Your task to perform on an android device: turn off javascript in the chrome app Image 0: 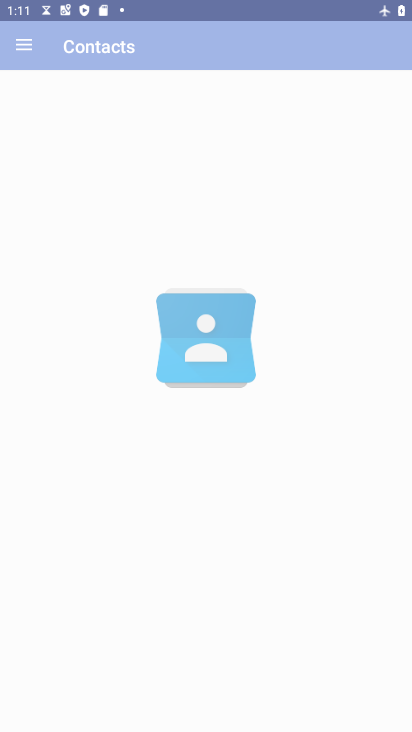
Step 0: drag from (216, 698) to (153, 164)
Your task to perform on an android device: turn off javascript in the chrome app Image 1: 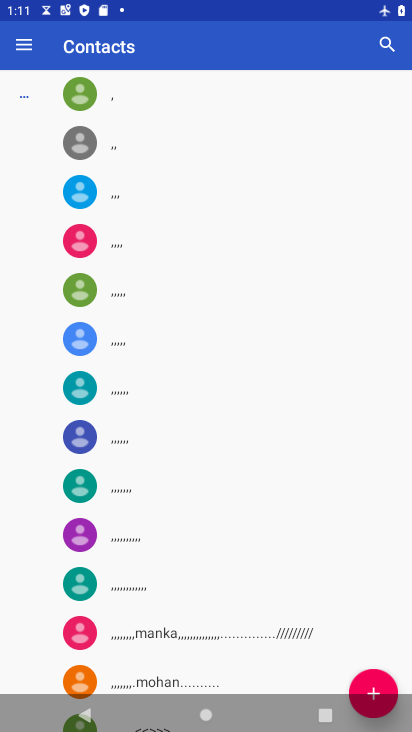
Step 1: press back button
Your task to perform on an android device: turn off javascript in the chrome app Image 2: 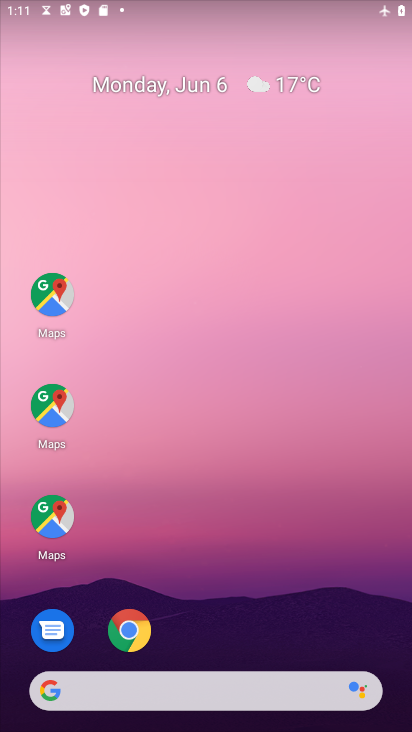
Step 2: drag from (295, 701) to (317, 178)
Your task to perform on an android device: turn off javascript in the chrome app Image 3: 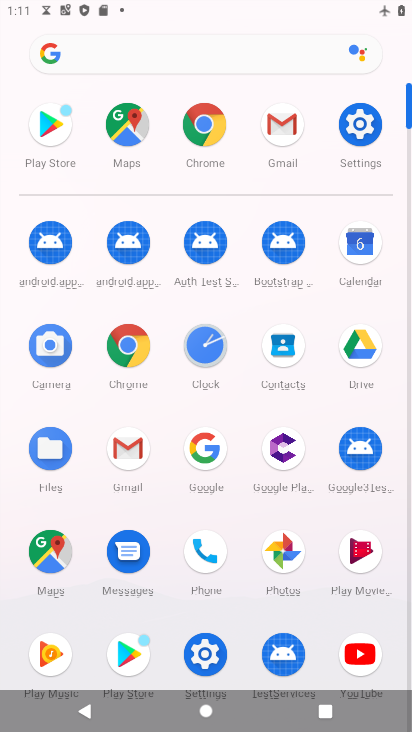
Step 3: click (212, 120)
Your task to perform on an android device: turn off javascript in the chrome app Image 4: 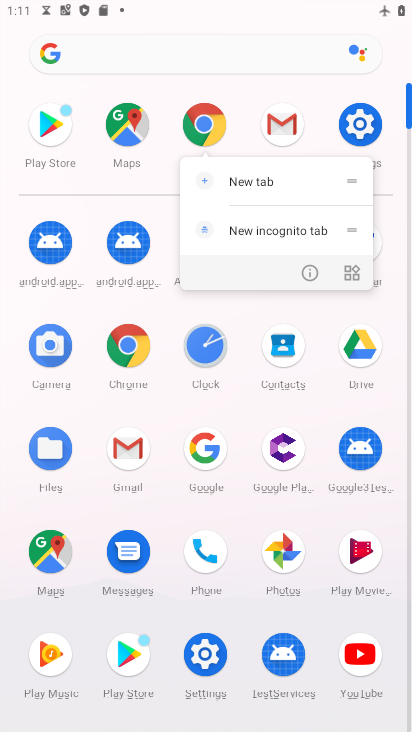
Step 4: click (200, 127)
Your task to perform on an android device: turn off javascript in the chrome app Image 5: 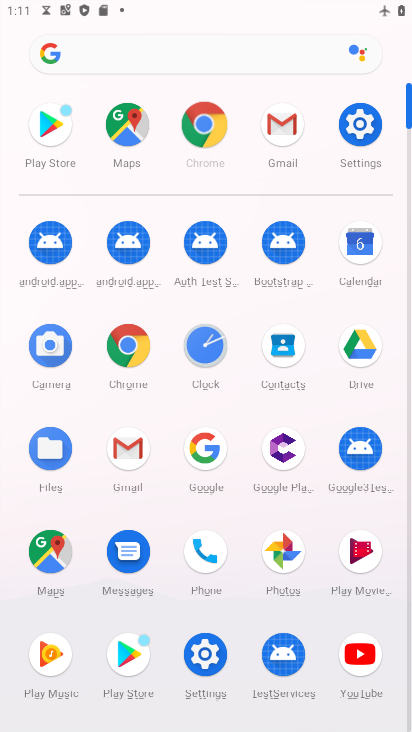
Step 5: click (199, 127)
Your task to perform on an android device: turn off javascript in the chrome app Image 6: 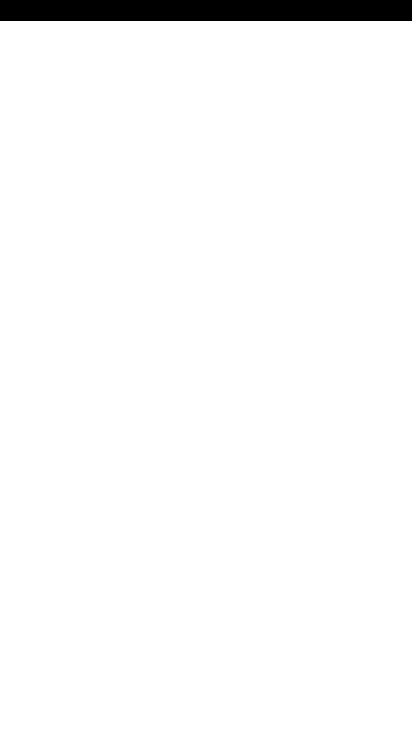
Step 6: click (198, 122)
Your task to perform on an android device: turn off javascript in the chrome app Image 7: 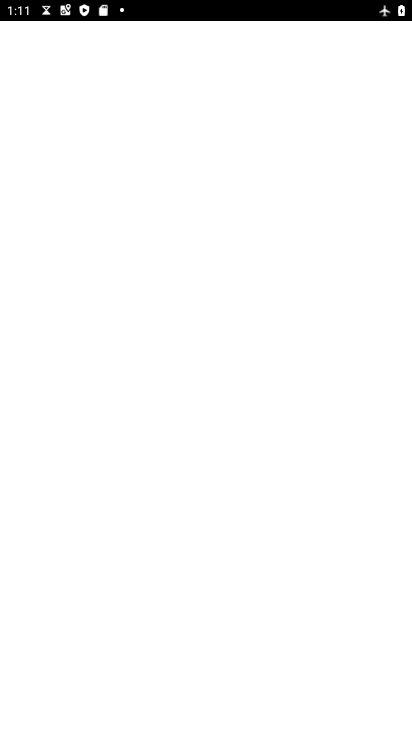
Step 7: click (197, 115)
Your task to perform on an android device: turn off javascript in the chrome app Image 8: 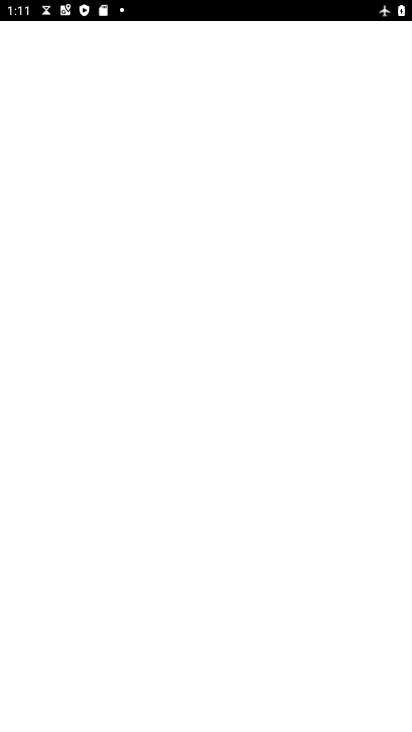
Step 8: click (197, 115)
Your task to perform on an android device: turn off javascript in the chrome app Image 9: 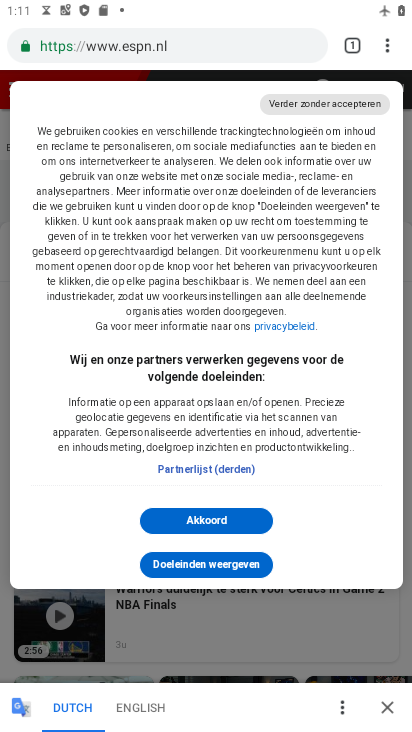
Step 9: click (376, 39)
Your task to perform on an android device: turn off javascript in the chrome app Image 10: 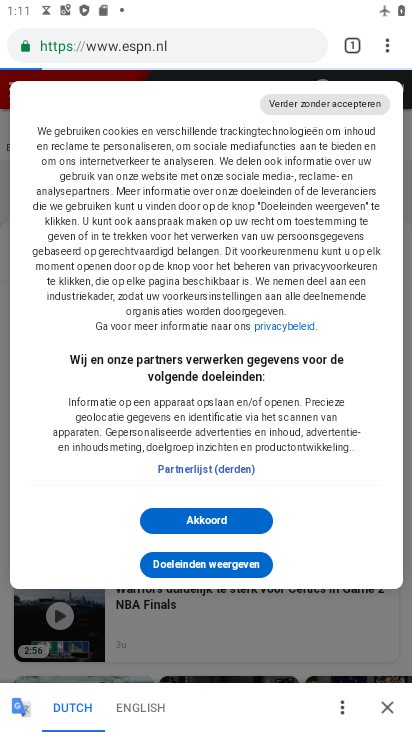
Step 10: drag from (387, 46) to (226, 505)
Your task to perform on an android device: turn off javascript in the chrome app Image 11: 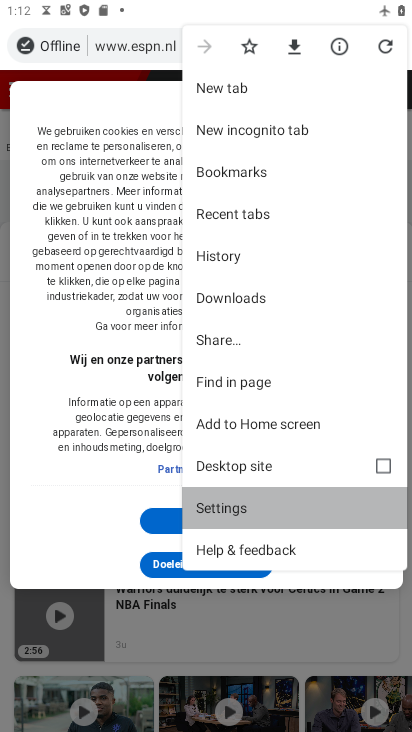
Step 11: click (226, 523)
Your task to perform on an android device: turn off javascript in the chrome app Image 12: 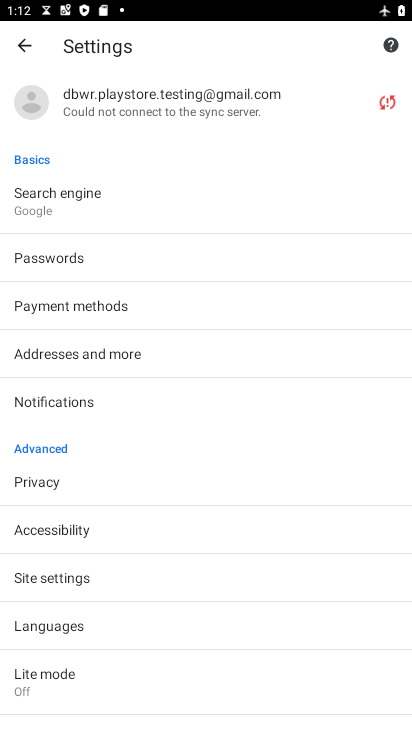
Step 12: drag from (90, 521) to (135, 268)
Your task to perform on an android device: turn off javascript in the chrome app Image 13: 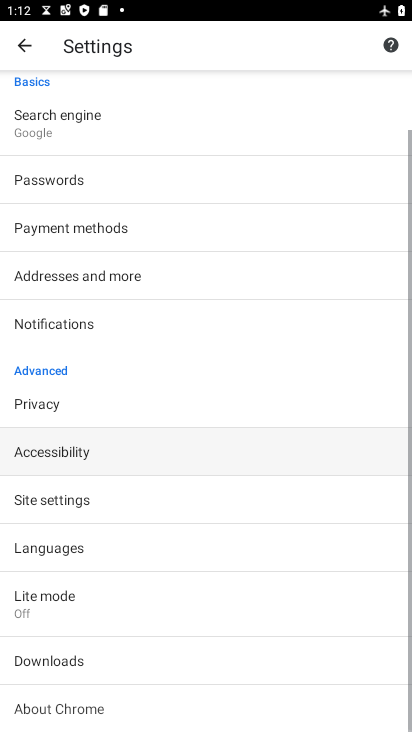
Step 13: drag from (65, 473) to (77, 306)
Your task to perform on an android device: turn off javascript in the chrome app Image 14: 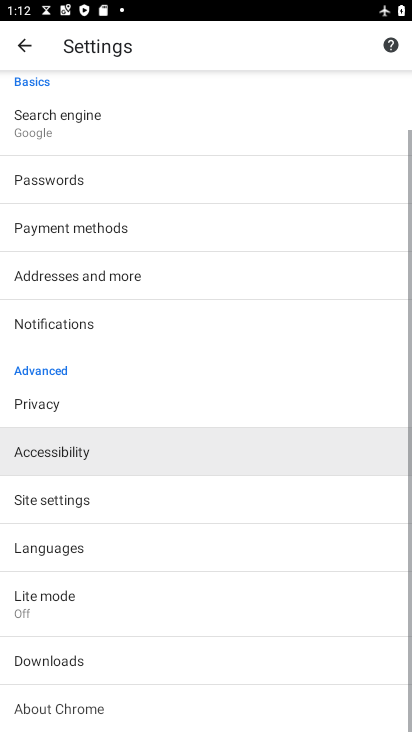
Step 14: drag from (102, 545) to (112, 335)
Your task to perform on an android device: turn off javascript in the chrome app Image 15: 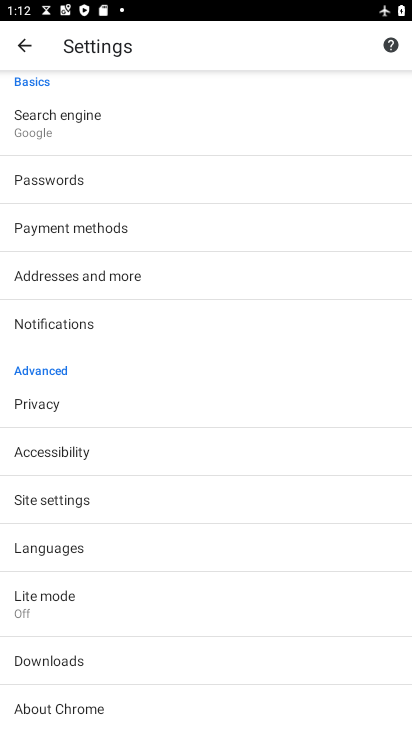
Step 15: click (31, 512)
Your task to perform on an android device: turn off javascript in the chrome app Image 16: 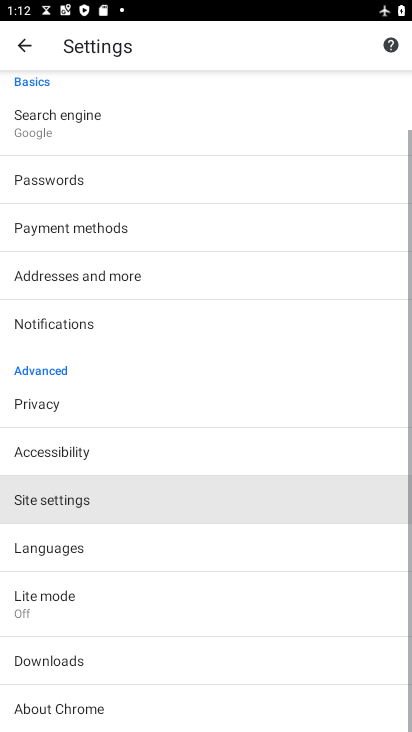
Step 16: click (29, 504)
Your task to perform on an android device: turn off javascript in the chrome app Image 17: 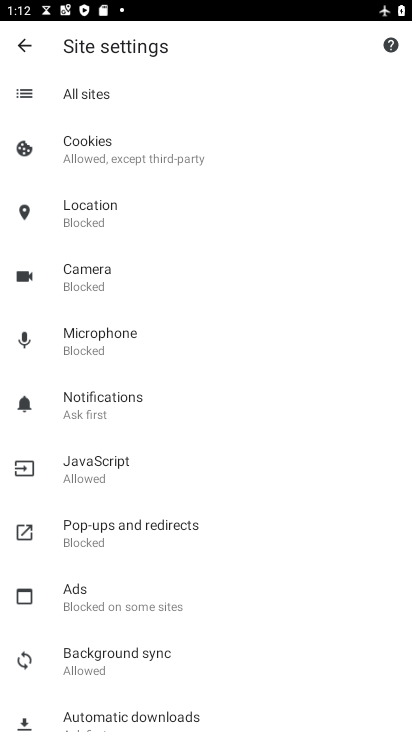
Step 17: click (84, 458)
Your task to perform on an android device: turn off javascript in the chrome app Image 18: 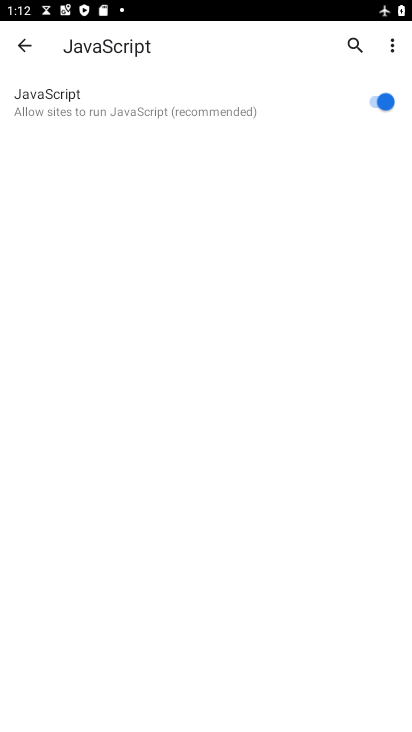
Step 18: click (384, 93)
Your task to perform on an android device: turn off javascript in the chrome app Image 19: 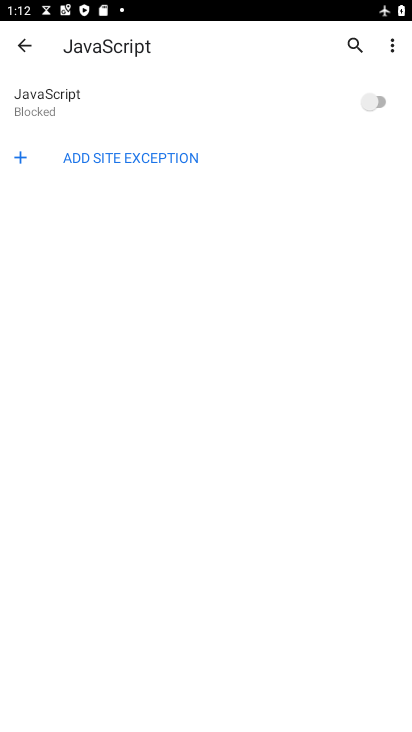
Step 19: task complete